Your task to perform on an android device: Search for Italian restaurants on Maps Image 0: 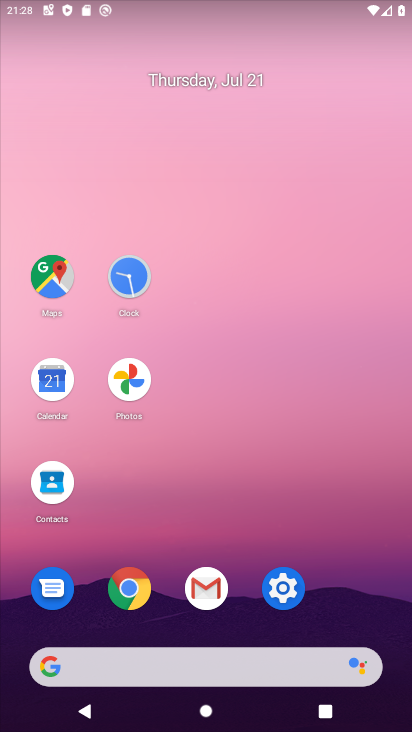
Step 0: click (47, 279)
Your task to perform on an android device: Search for Italian restaurants on Maps Image 1: 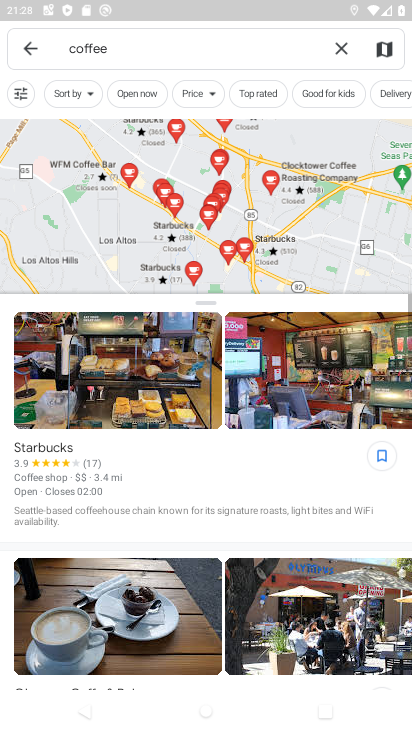
Step 1: click (340, 46)
Your task to perform on an android device: Search for Italian restaurants on Maps Image 2: 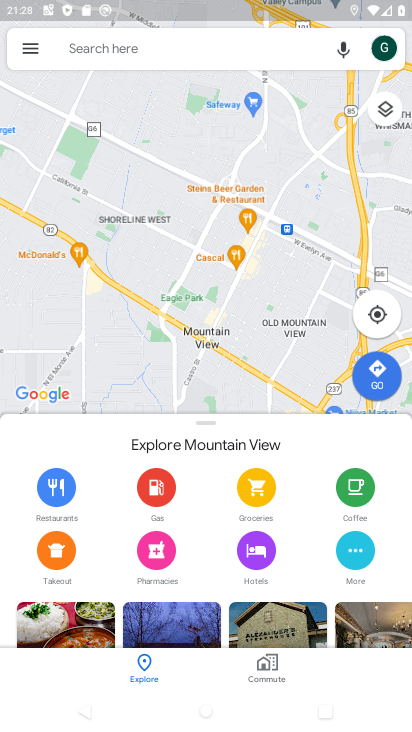
Step 2: click (202, 52)
Your task to perform on an android device: Search for Italian restaurants on Maps Image 3: 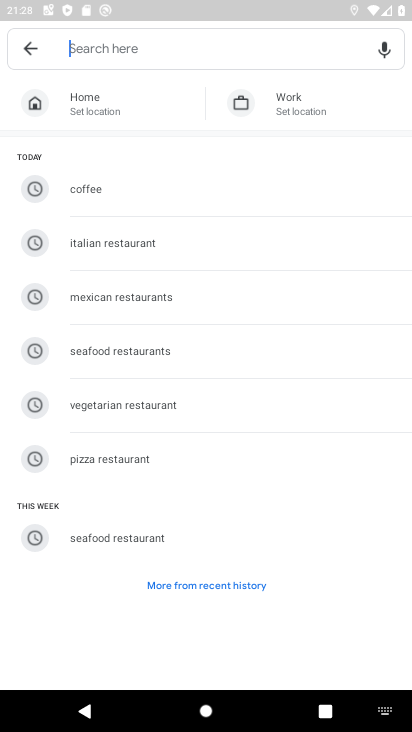
Step 3: click (117, 243)
Your task to perform on an android device: Search for Italian restaurants on Maps Image 4: 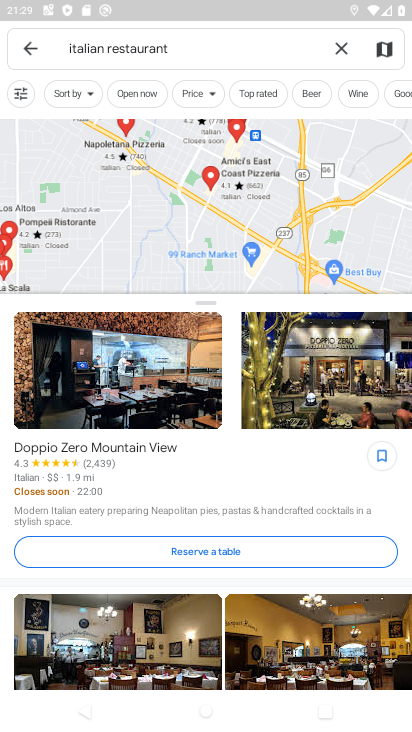
Step 4: task complete